Your task to perform on an android device: open device folders in google photos Image 0: 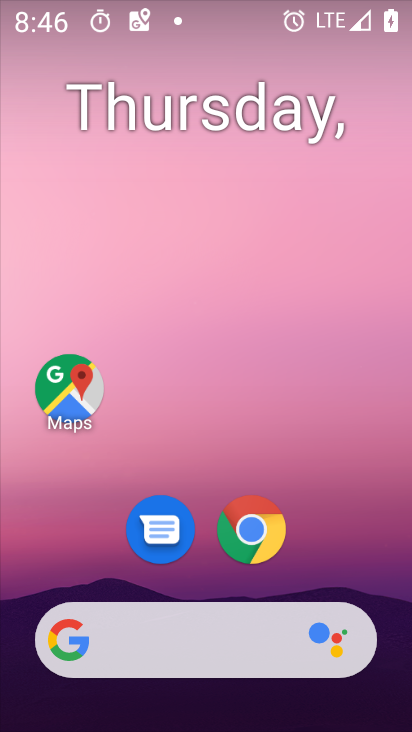
Step 0: drag from (363, 575) to (365, 147)
Your task to perform on an android device: open device folders in google photos Image 1: 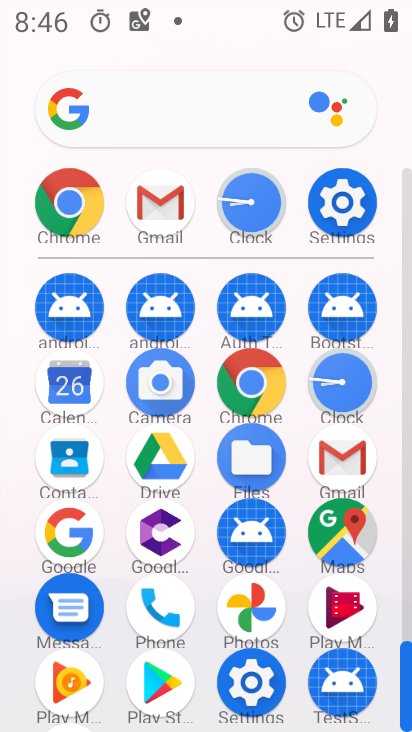
Step 1: click (257, 614)
Your task to perform on an android device: open device folders in google photos Image 2: 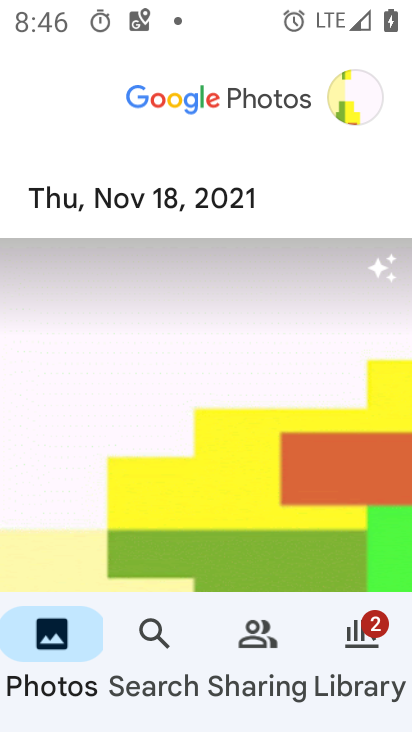
Step 2: click (349, 114)
Your task to perform on an android device: open device folders in google photos Image 3: 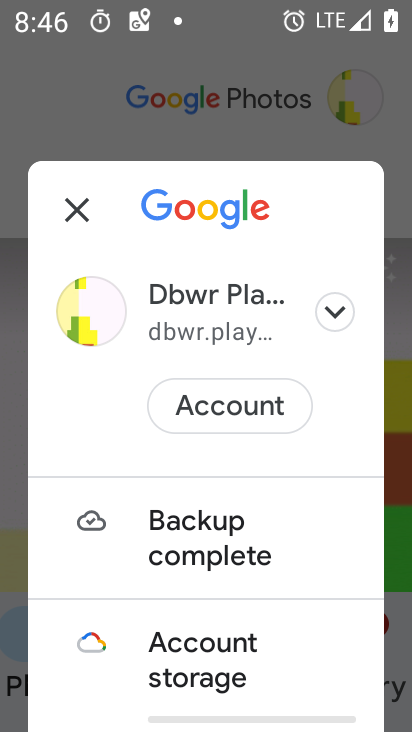
Step 3: drag from (294, 531) to (313, 393)
Your task to perform on an android device: open device folders in google photos Image 4: 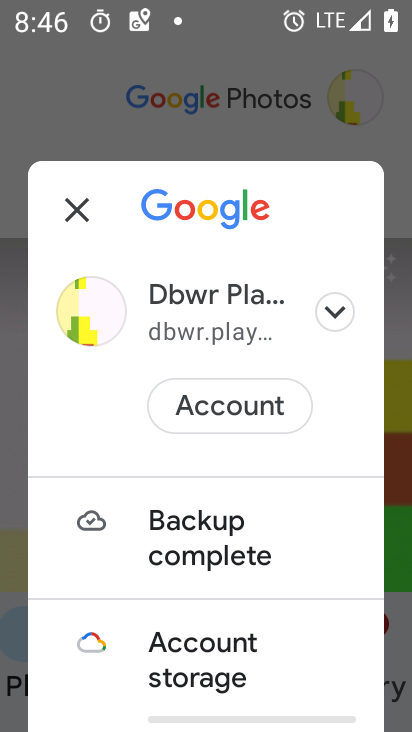
Step 4: drag from (332, 534) to (330, 308)
Your task to perform on an android device: open device folders in google photos Image 5: 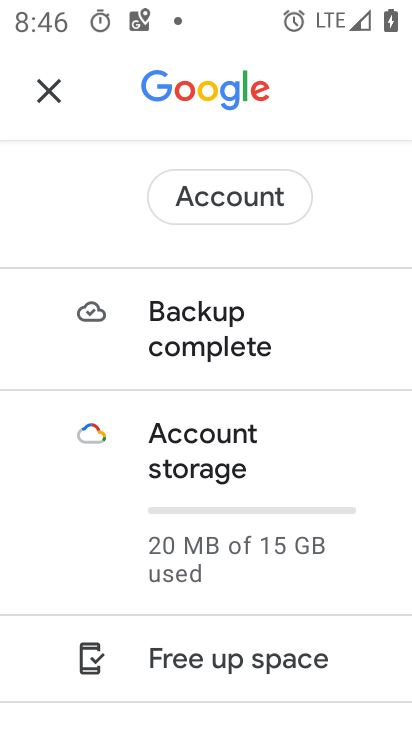
Step 5: drag from (337, 583) to (348, 414)
Your task to perform on an android device: open device folders in google photos Image 6: 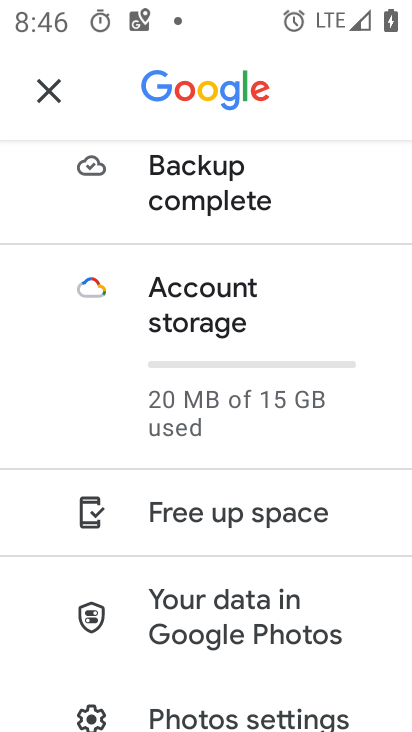
Step 6: drag from (331, 586) to (327, 362)
Your task to perform on an android device: open device folders in google photos Image 7: 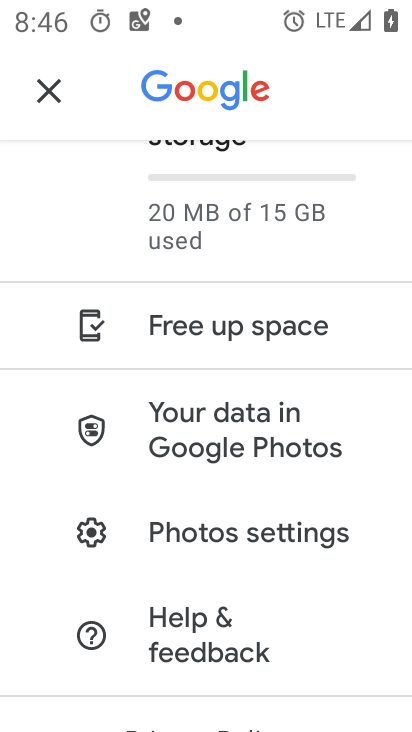
Step 7: drag from (318, 614) to (308, 396)
Your task to perform on an android device: open device folders in google photos Image 8: 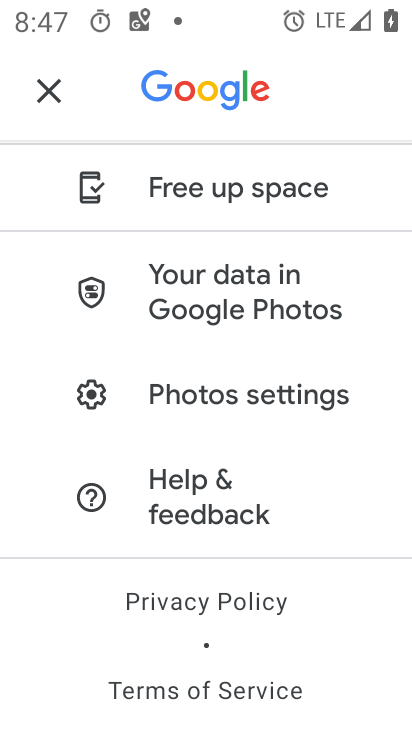
Step 8: click (52, 86)
Your task to perform on an android device: open device folders in google photos Image 9: 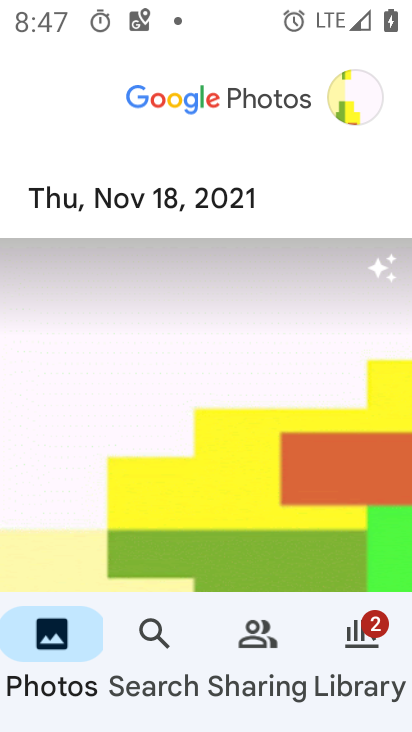
Step 9: task complete